Your task to perform on an android device: Open location settings Image 0: 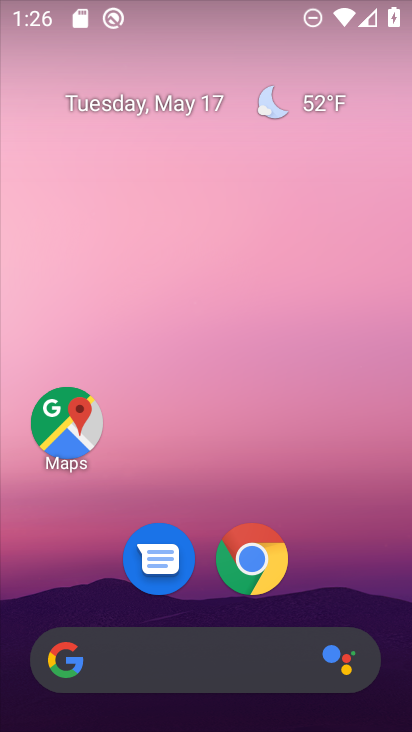
Step 0: drag from (331, 550) to (224, 109)
Your task to perform on an android device: Open location settings Image 1: 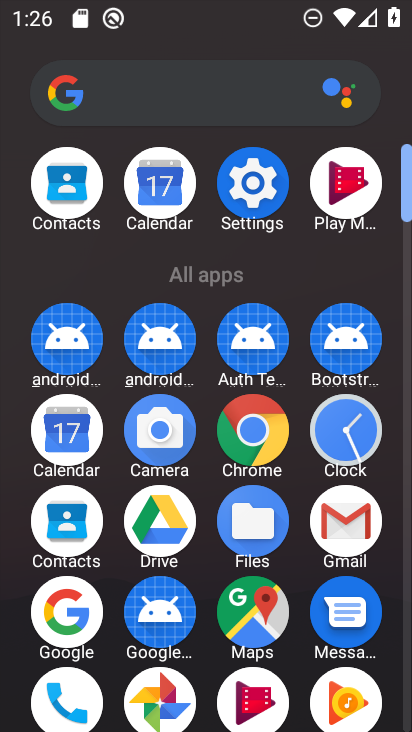
Step 1: click (250, 184)
Your task to perform on an android device: Open location settings Image 2: 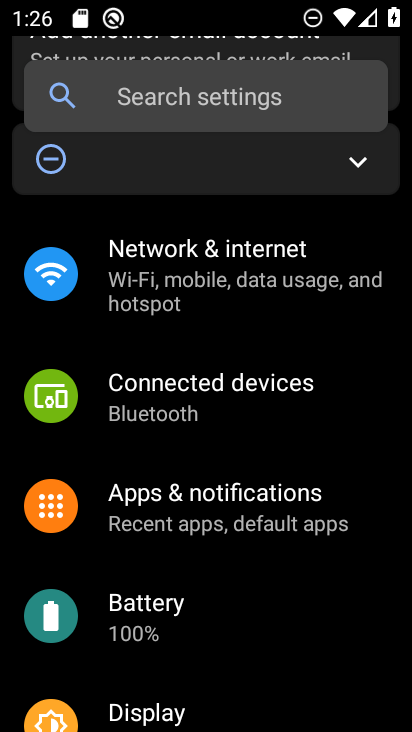
Step 2: drag from (231, 436) to (249, 332)
Your task to perform on an android device: Open location settings Image 3: 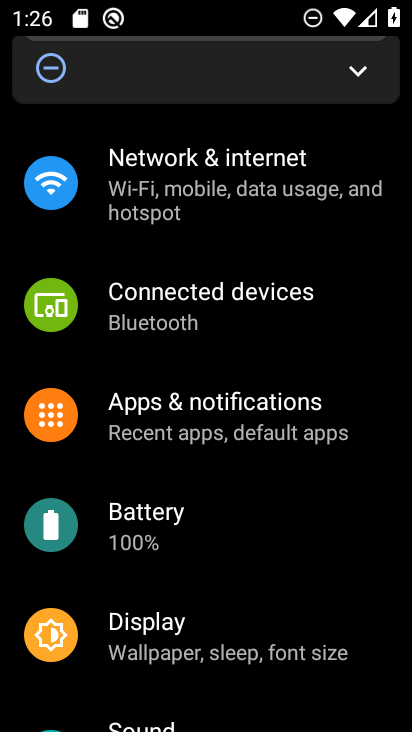
Step 3: drag from (207, 477) to (263, 372)
Your task to perform on an android device: Open location settings Image 4: 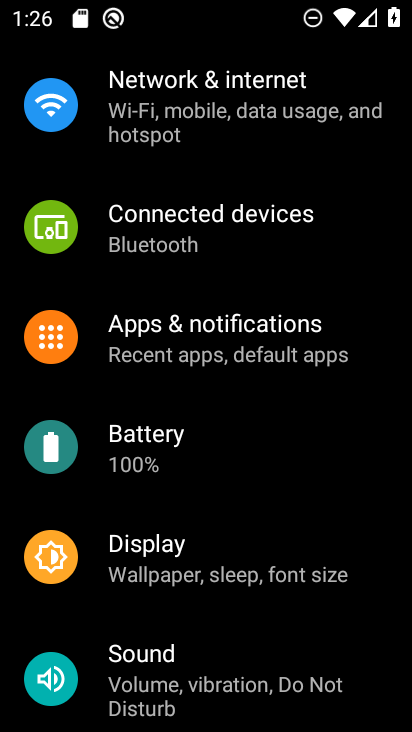
Step 4: drag from (223, 526) to (297, 403)
Your task to perform on an android device: Open location settings Image 5: 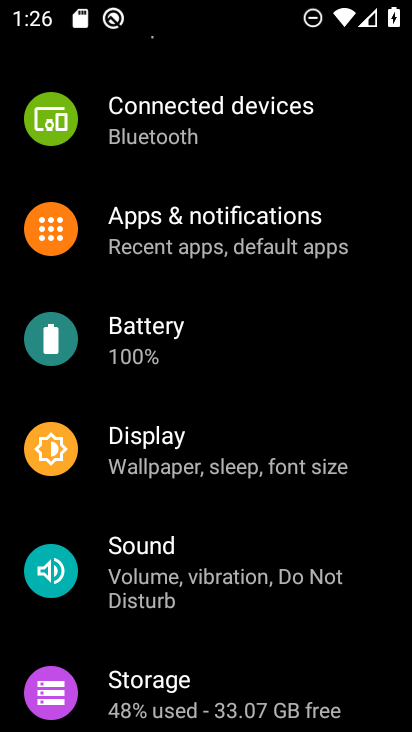
Step 5: drag from (226, 521) to (279, 399)
Your task to perform on an android device: Open location settings Image 6: 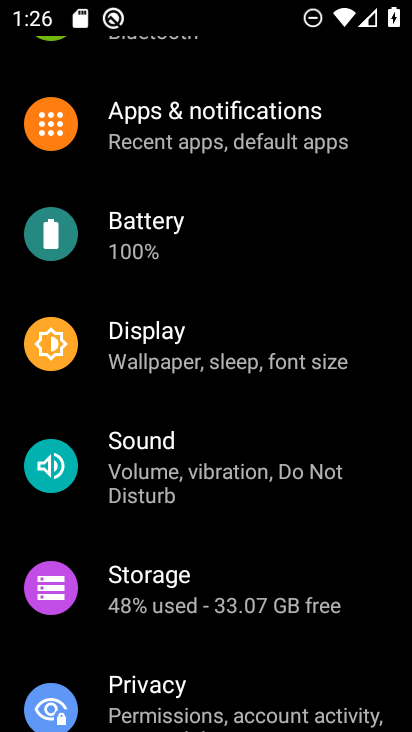
Step 6: drag from (217, 520) to (262, 427)
Your task to perform on an android device: Open location settings Image 7: 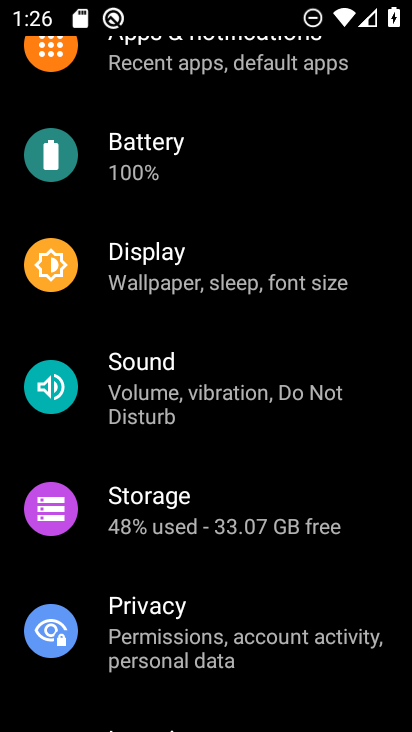
Step 7: drag from (201, 573) to (267, 450)
Your task to perform on an android device: Open location settings Image 8: 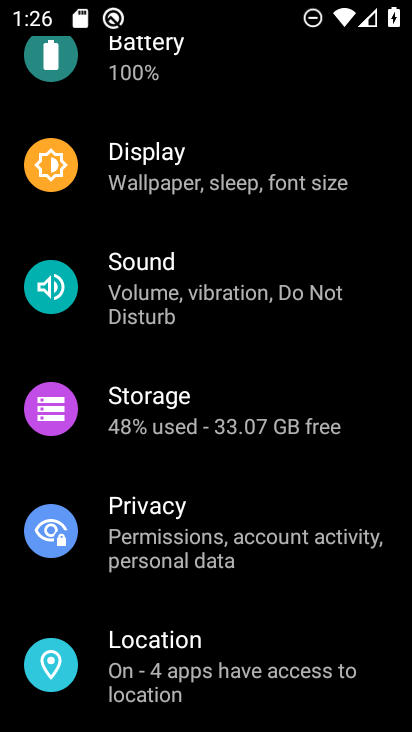
Step 8: drag from (213, 606) to (292, 450)
Your task to perform on an android device: Open location settings Image 9: 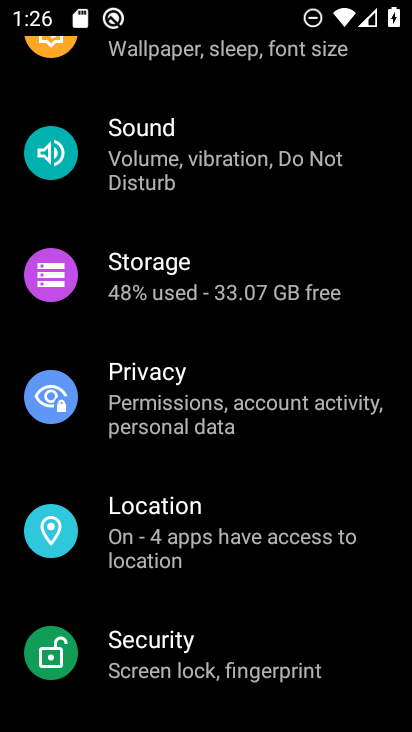
Step 9: click (182, 513)
Your task to perform on an android device: Open location settings Image 10: 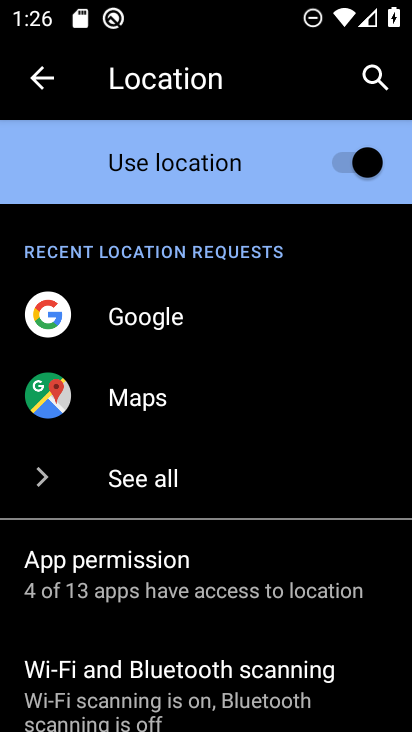
Step 10: task complete